Your task to perform on an android device: allow notifications from all sites in the chrome app Image 0: 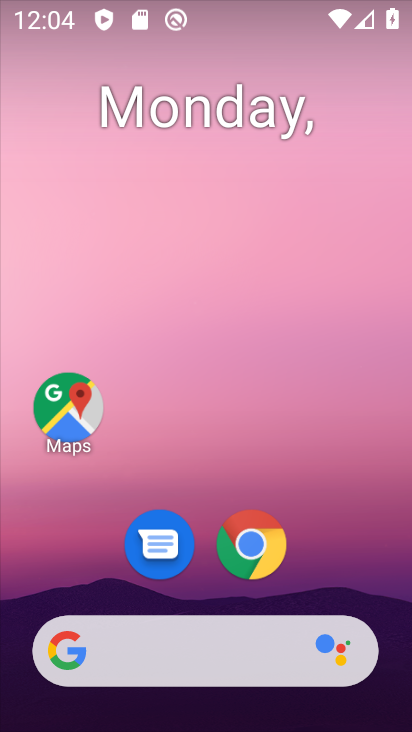
Step 0: drag from (387, 651) to (351, 53)
Your task to perform on an android device: allow notifications from all sites in the chrome app Image 1: 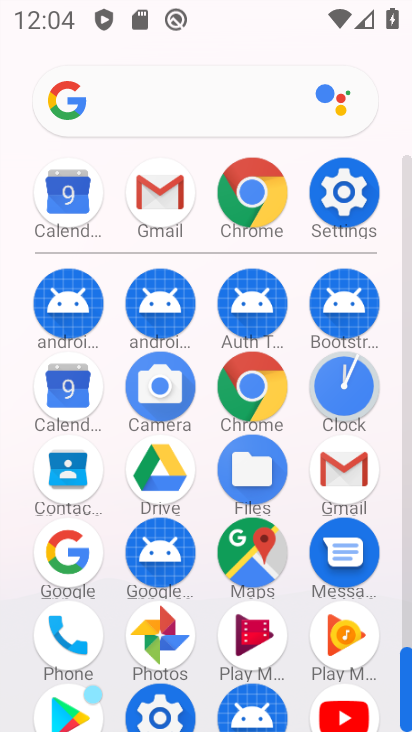
Step 1: click (265, 416)
Your task to perform on an android device: allow notifications from all sites in the chrome app Image 2: 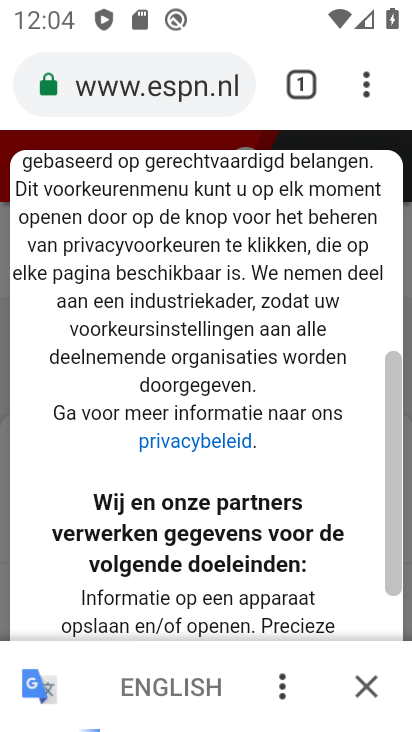
Step 2: drag from (365, 87) to (180, 610)
Your task to perform on an android device: allow notifications from all sites in the chrome app Image 3: 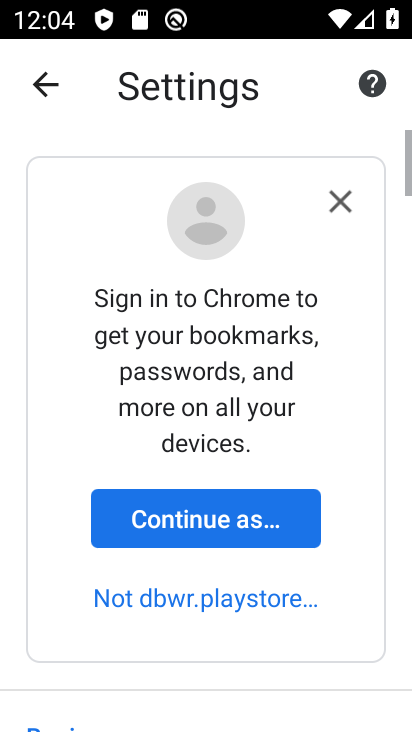
Step 3: drag from (265, 619) to (280, 5)
Your task to perform on an android device: allow notifications from all sites in the chrome app Image 4: 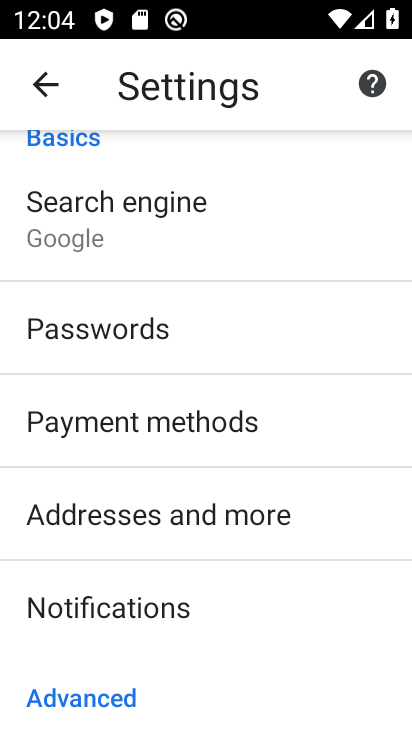
Step 4: drag from (305, 705) to (277, 89)
Your task to perform on an android device: allow notifications from all sites in the chrome app Image 5: 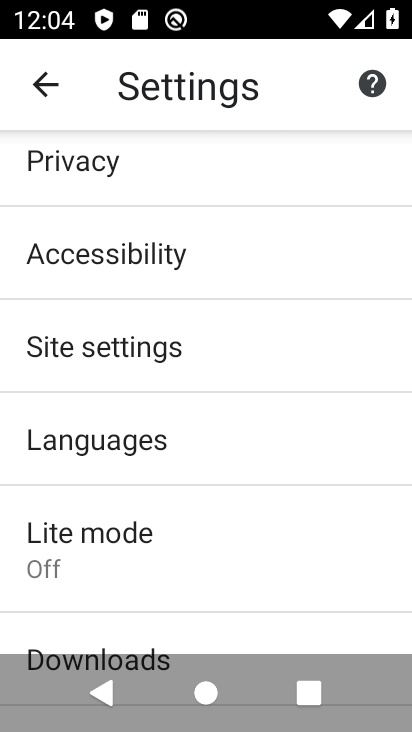
Step 5: click (160, 329)
Your task to perform on an android device: allow notifications from all sites in the chrome app Image 6: 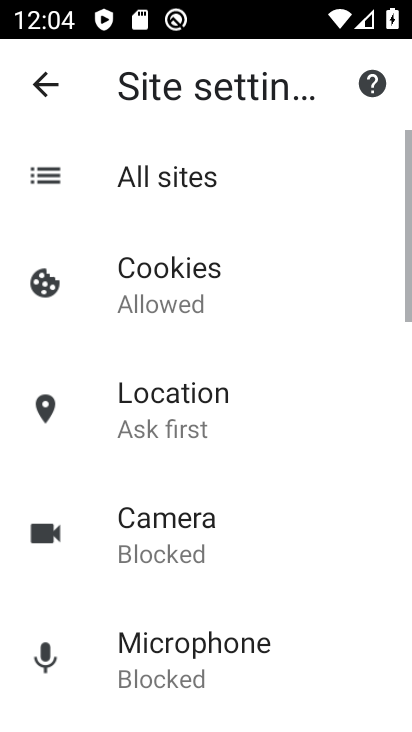
Step 6: drag from (279, 679) to (288, 84)
Your task to perform on an android device: allow notifications from all sites in the chrome app Image 7: 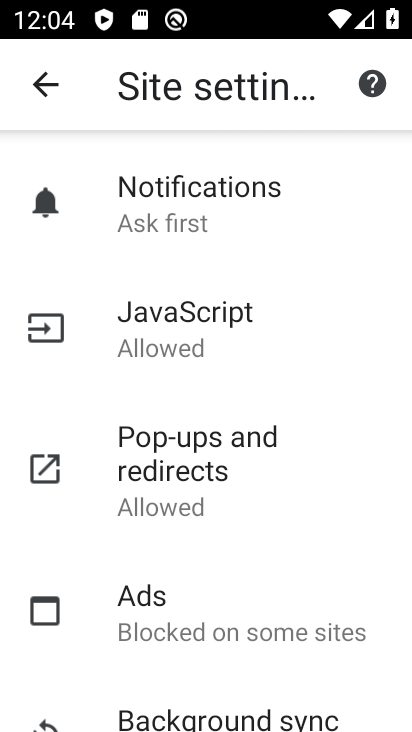
Step 7: click (247, 210)
Your task to perform on an android device: allow notifications from all sites in the chrome app Image 8: 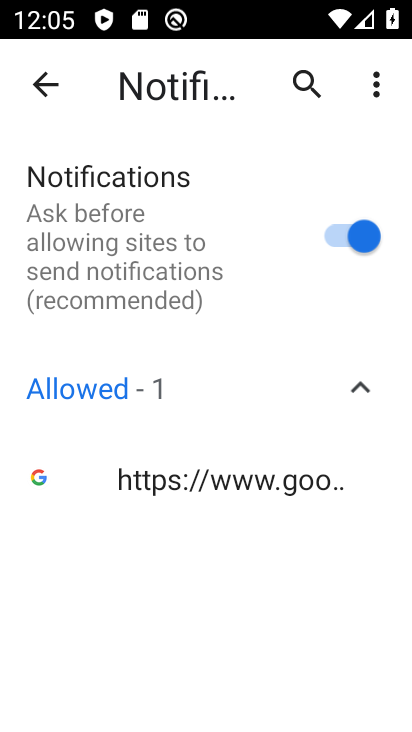
Step 8: click (277, 494)
Your task to perform on an android device: allow notifications from all sites in the chrome app Image 9: 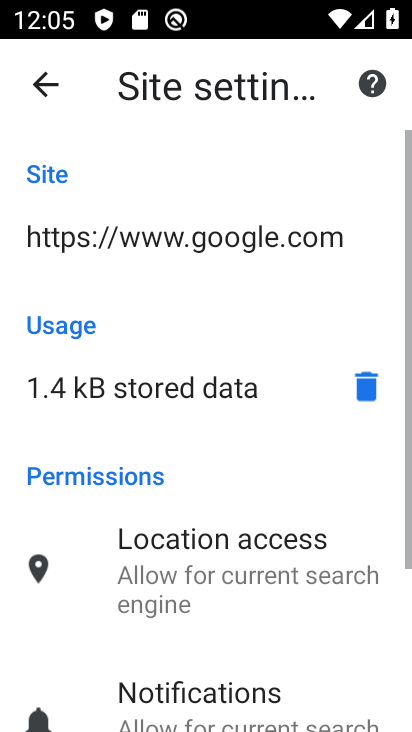
Step 9: task complete